Your task to perform on an android device: turn off data saver in the chrome app Image 0: 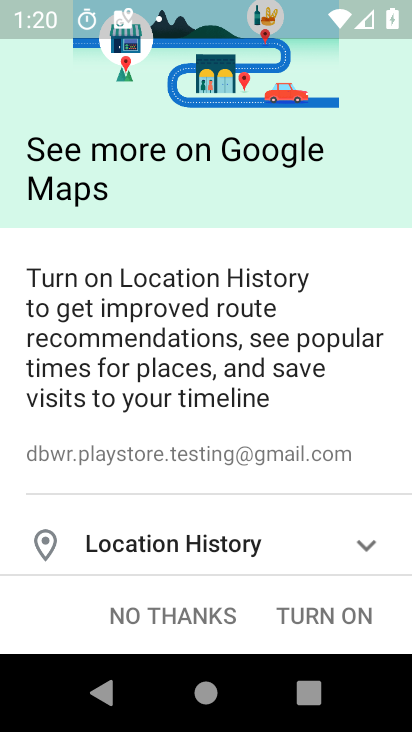
Step 0: press home button
Your task to perform on an android device: turn off data saver in the chrome app Image 1: 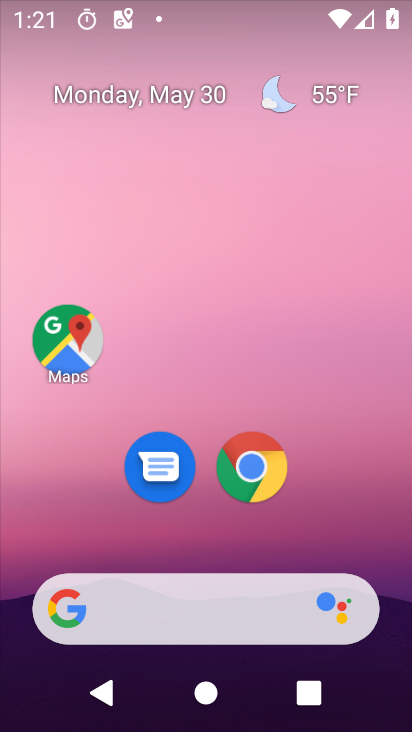
Step 1: click (257, 468)
Your task to perform on an android device: turn off data saver in the chrome app Image 2: 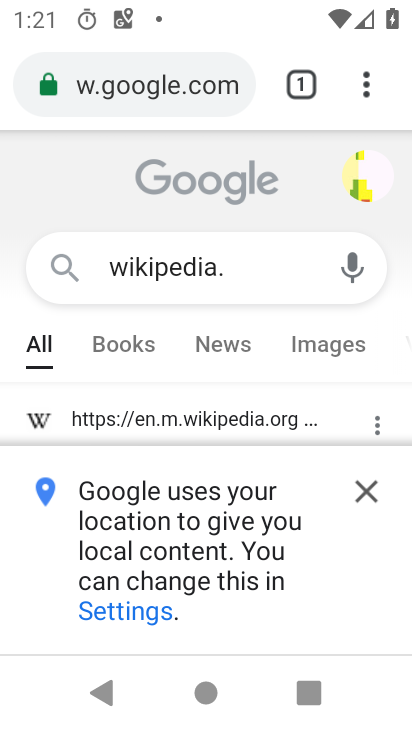
Step 2: click (367, 86)
Your task to perform on an android device: turn off data saver in the chrome app Image 3: 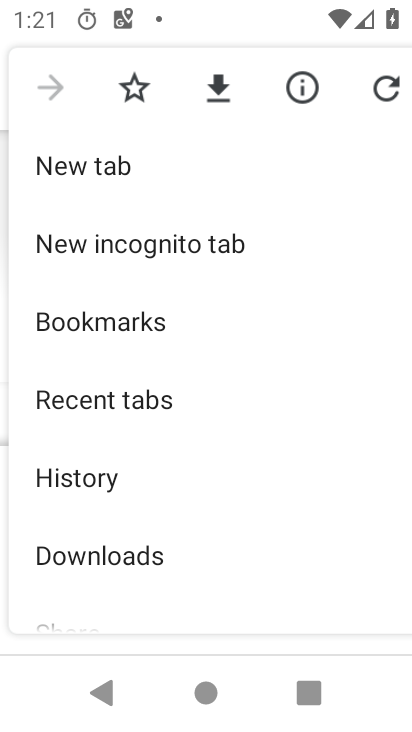
Step 3: drag from (267, 577) to (282, 170)
Your task to perform on an android device: turn off data saver in the chrome app Image 4: 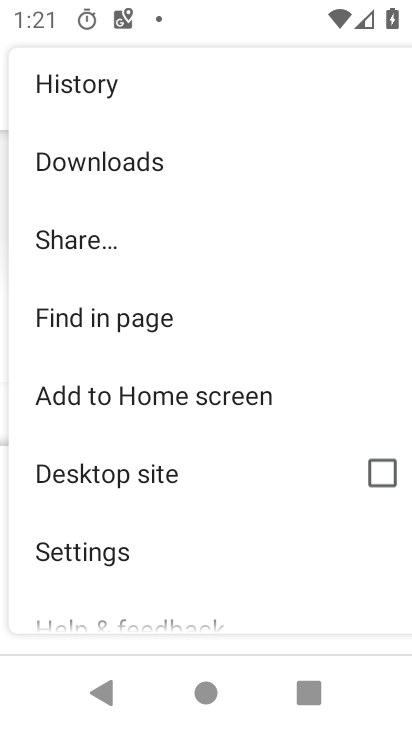
Step 4: drag from (269, 556) to (287, 207)
Your task to perform on an android device: turn off data saver in the chrome app Image 5: 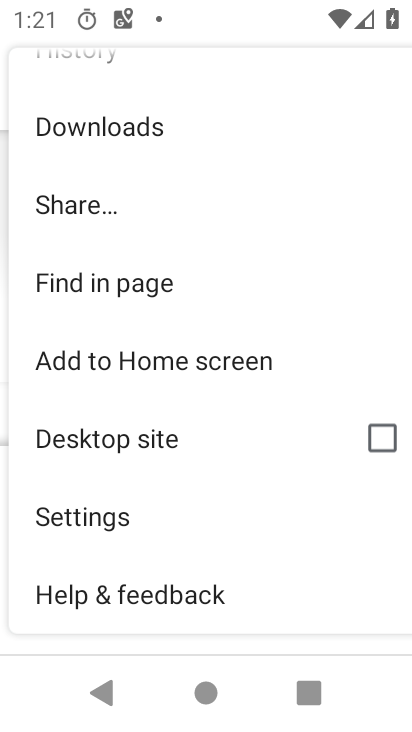
Step 5: drag from (260, 587) to (287, 208)
Your task to perform on an android device: turn off data saver in the chrome app Image 6: 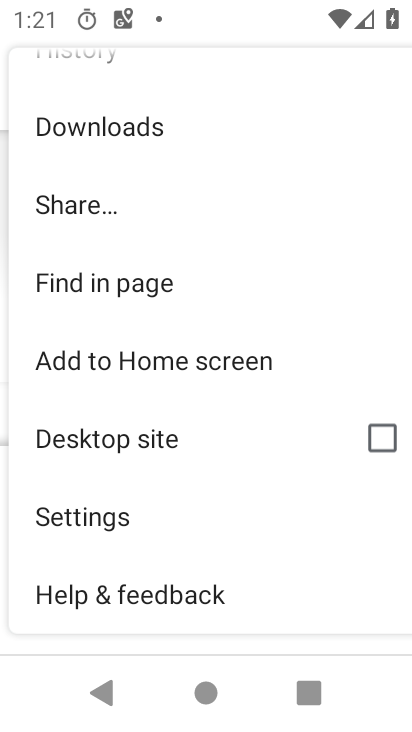
Step 6: click (80, 509)
Your task to perform on an android device: turn off data saver in the chrome app Image 7: 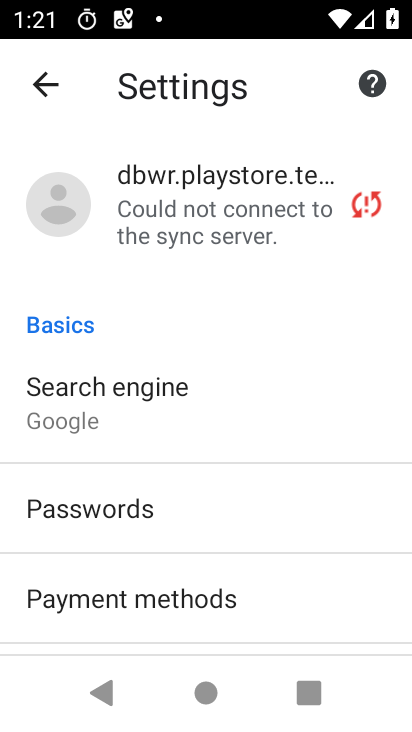
Step 7: drag from (299, 600) to (313, 318)
Your task to perform on an android device: turn off data saver in the chrome app Image 8: 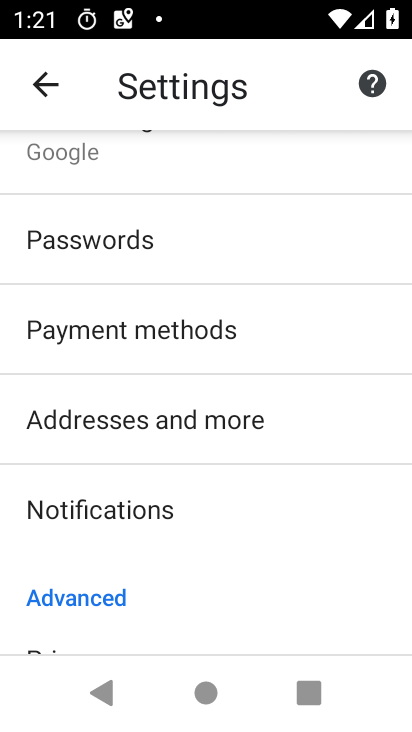
Step 8: drag from (292, 516) to (286, 249)
Your task to perform on an android device: turn off data saver in the chrome app Image 9: 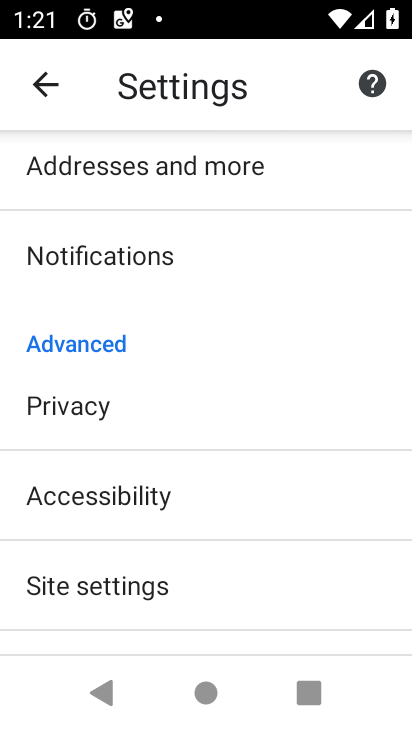
Step 9: drag from (268, 596) to (294, 300)
Your task to perform on an android device: turn off data saver in the chrome app Image 10: 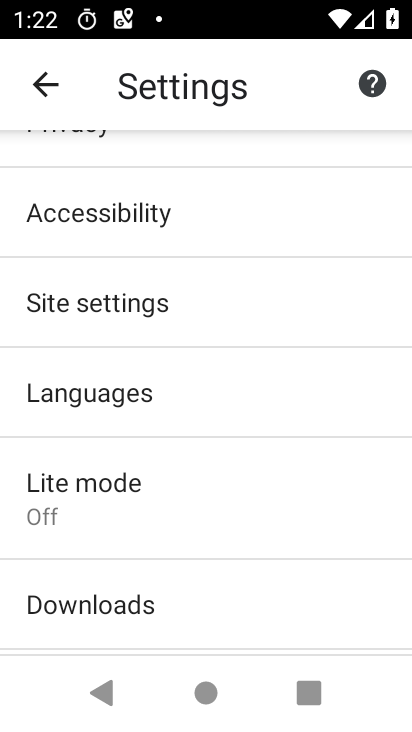
Step 10: drag from (269, 602) to (312, 184)
Your task to perform on an android device: turn off data saver in the chrome app Image 11: 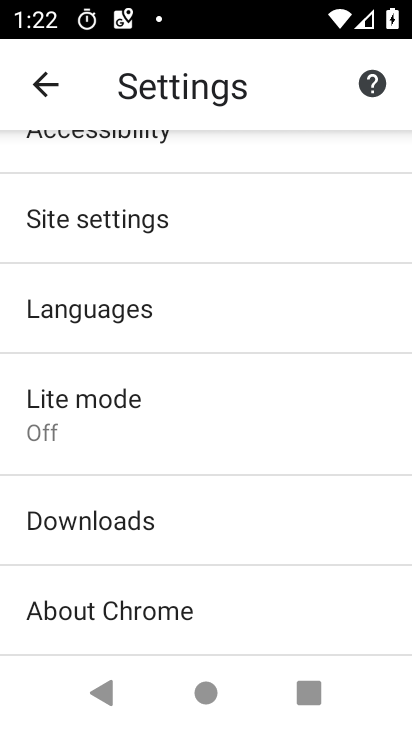
Step 11: drag from (231, 625) to (293, 315)
Your task to perform on an android device: turn off data saver in the chrome app Image 12: 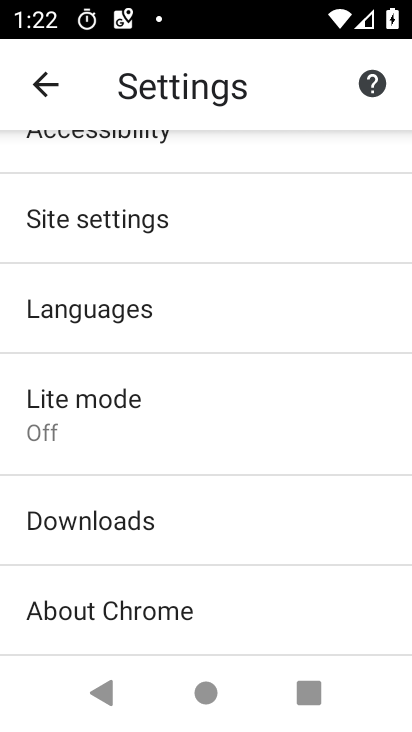
Step 12: click (72, 407)
Your task to perform on an android device: turn off data saver in the chrome app Image 13: 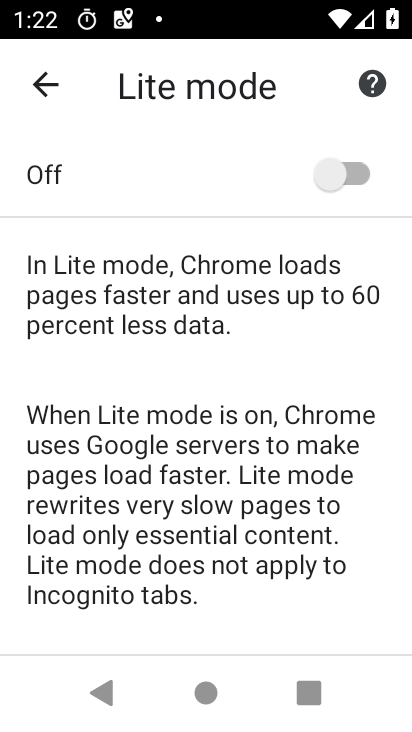
Step 13: task complete